Your task to perform on an android device: Open Chrome and go to settings Image 0: 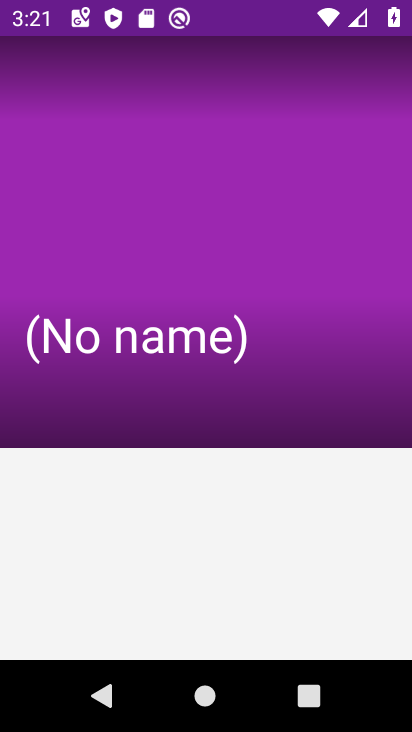
Step 0: drag from (180, 550) to (325, 333)
Your task to perform on an android device: Open Chrome and go to settings Image 1: 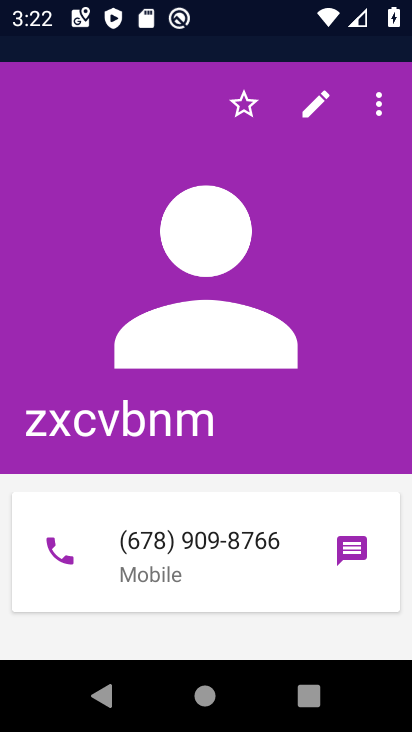
Step 1: press home button
Your task to perform on an android device: Open Chrome and go to settings Image 2: 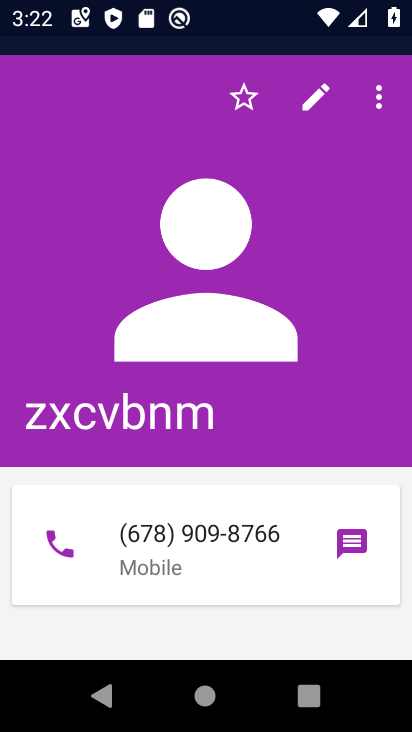
Step 2: click (410, 433)
Your task to perform on an android device: Open Chrome and go to settings Image 3: 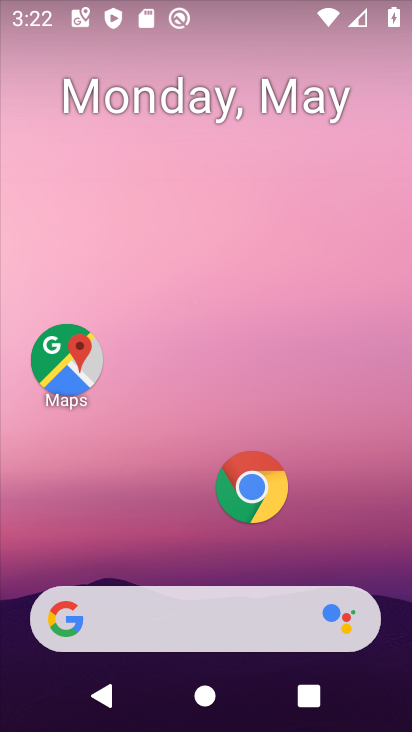
Step 3: click (261, 496)
Your task to perform on an android device: Open Chrome and go to settings Image 4: 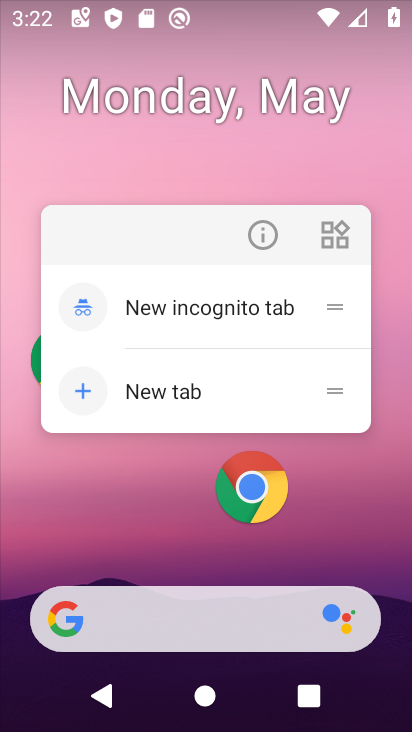
Step 4: click (251, 482)
Your task to perform on an android device: Open Chrome and go to settings Image 5: 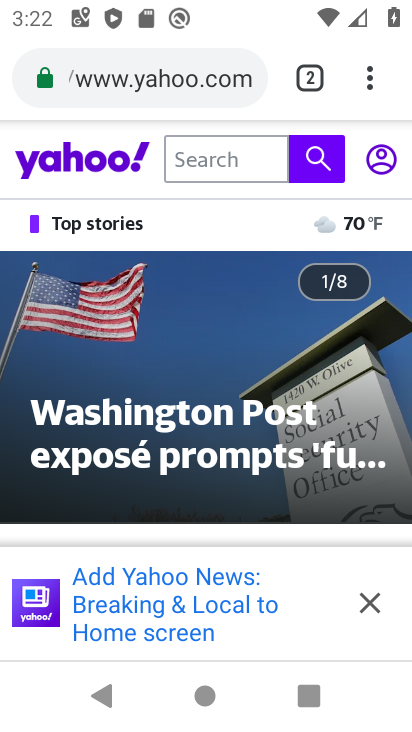
Step 5: click (370, 73)
Your task to perform on an android device: Open Chrome and go to settings Image 6: 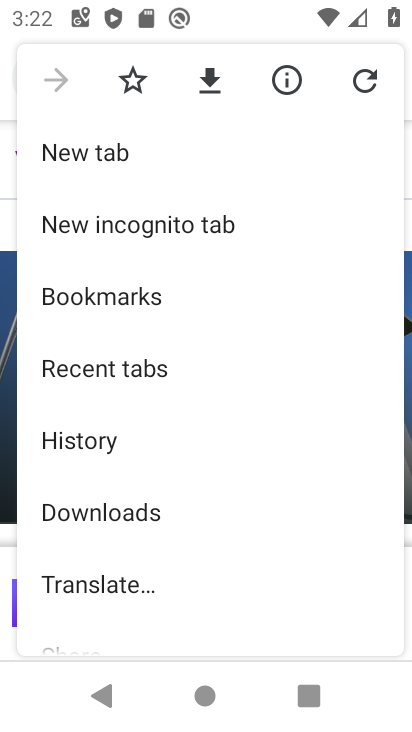
Step 6: drag from (156, 594) to (166, 252)
Your task to perform on an android device: Open Chrome and go to settings Image 7: 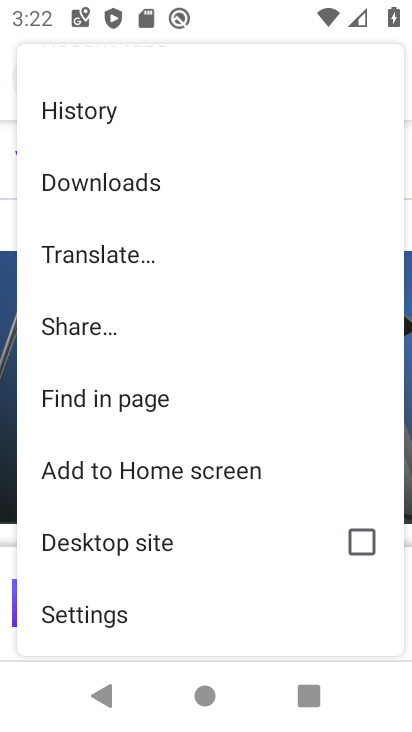
Step 7: click (150, 610)
Your task to perform on an android device: Open Chrome and go to settings Image 8: 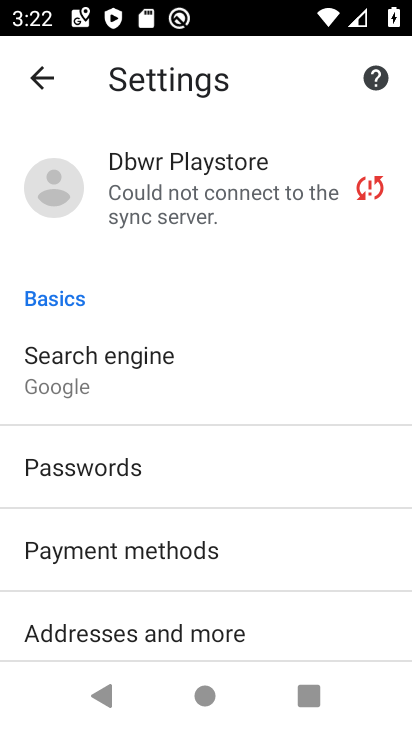
Step 8: task complete